Your task to perform on an android device: turn on wifi Image 0: 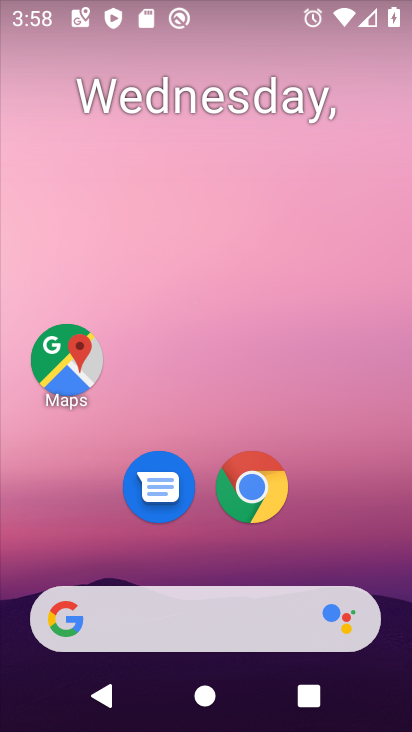
Step 0: drag from (355, 543) to (360, 198)
Your task to perform on an android device: turn on wifi Image 1: 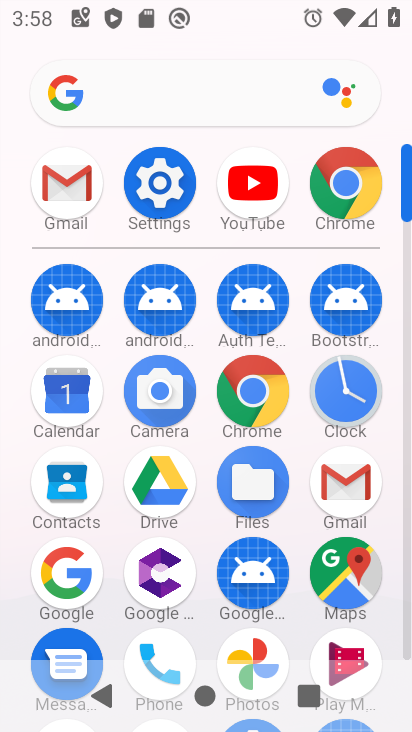
Step 1: click (173, 206)
Your task to perform on an android device: turn on wifi Image 2: 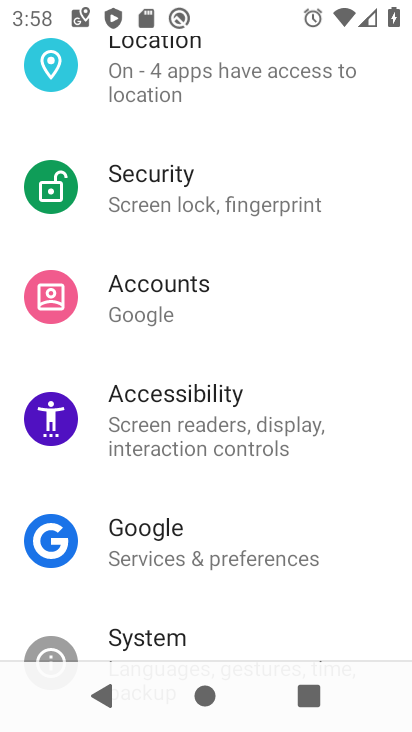
Step 2: drag from (325, 271) to (328, 347)
Your task to perform on an android device: turn on wifi Image 3: 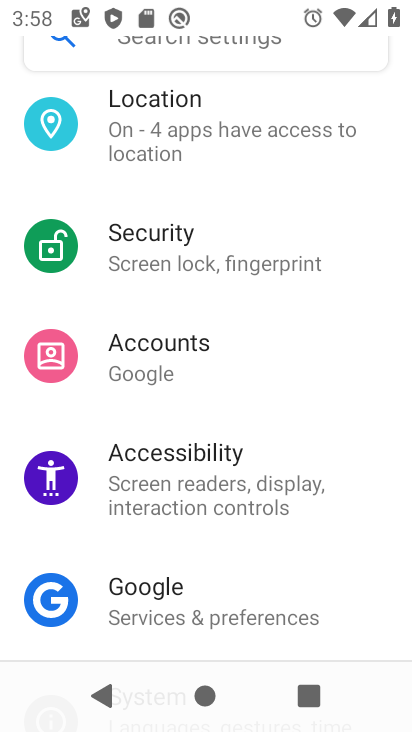
Step 3: drag from (340, 245) to (342, 343)
Your task to perform on an android device: turn on wifi Image 4: 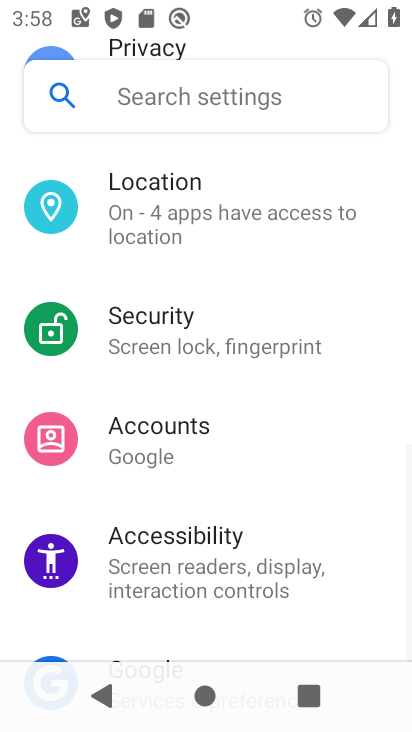
Step 4: drag from (341, 268) to (342, 366)
Your task to perform on an android device: turn on wifi Image 5: 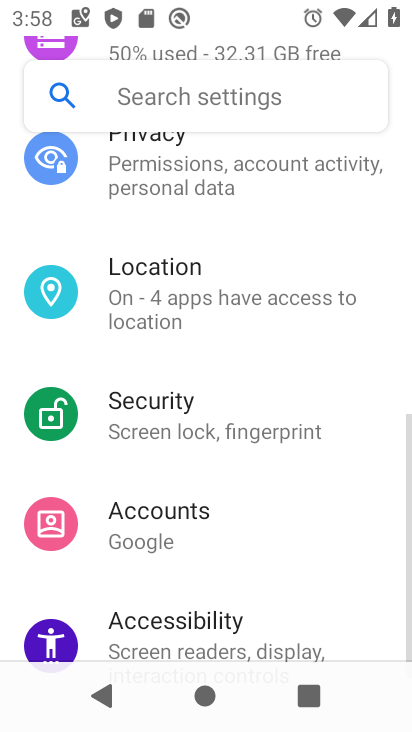
Step 5: drag from (341, 242) to (338, 366)
Your task to perform on an android device: turn on wifi Image 6: 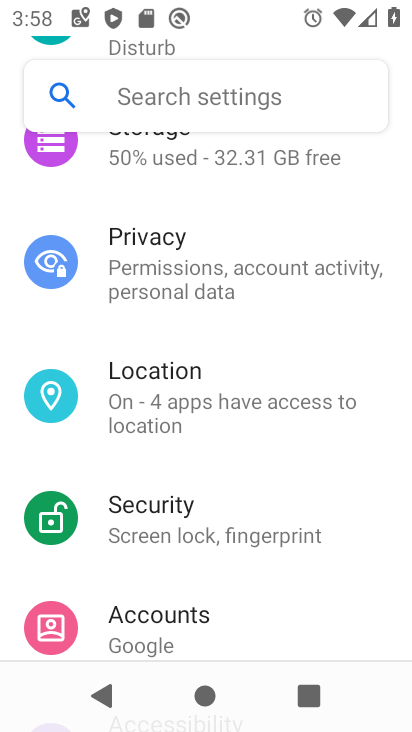
Step 6: drag from (328, 201) to (330, 349)
Your task to perform on an android device: turn on wifi Image 7: 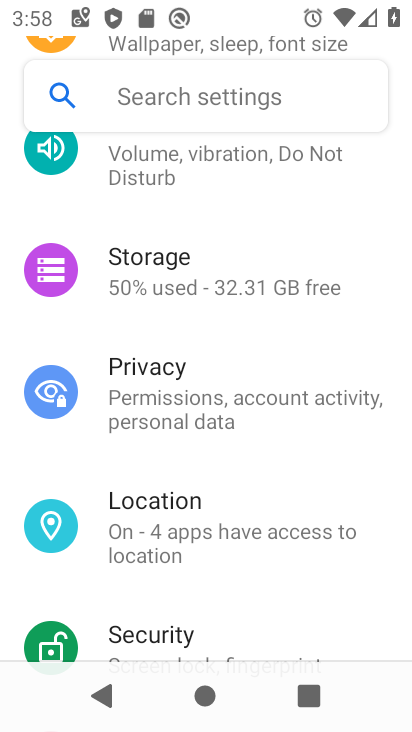
Step 7: drag from (323, 199) to (318, 368)
Your task to perform on an android device: turn on wifi Image 8: 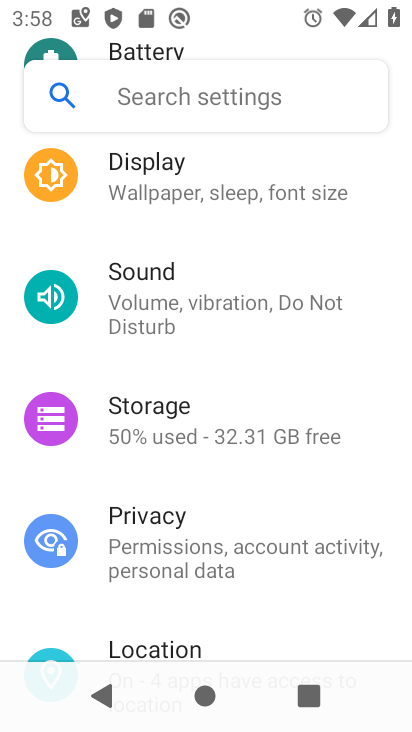
Step 8: drag from (330, 160) to (322, 306)
Your task to perform on an android device: turn on wifi Image 9: 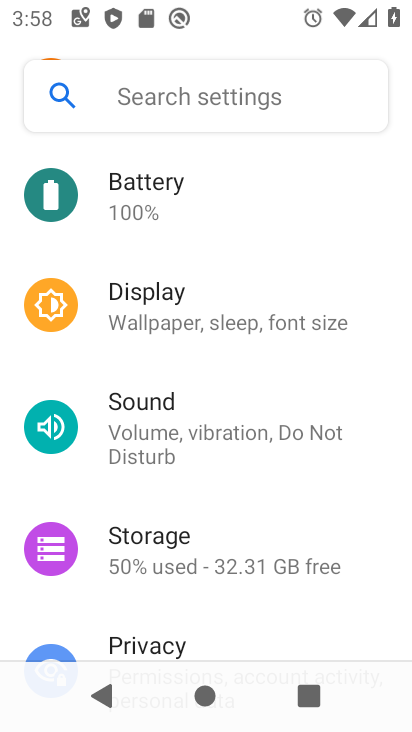
Step 9: drag from (307, 169) to (308, 362)
Your task to perform on an android device: turn on wifi Image 10: 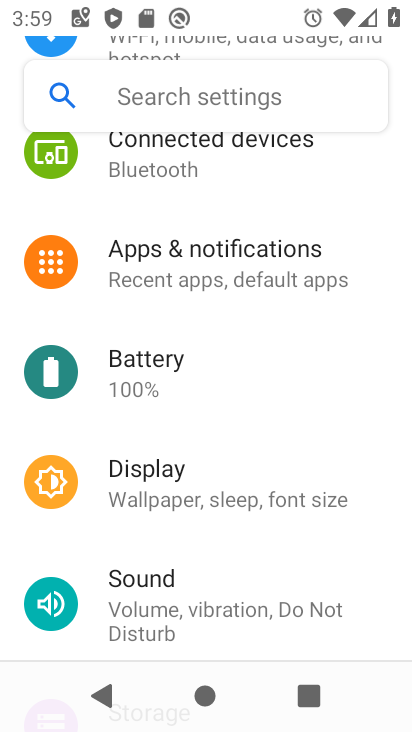
Step 10: drag from (317, 182) to (302, 343)
Your task to perform on an android device: turn on wifi Image 11: 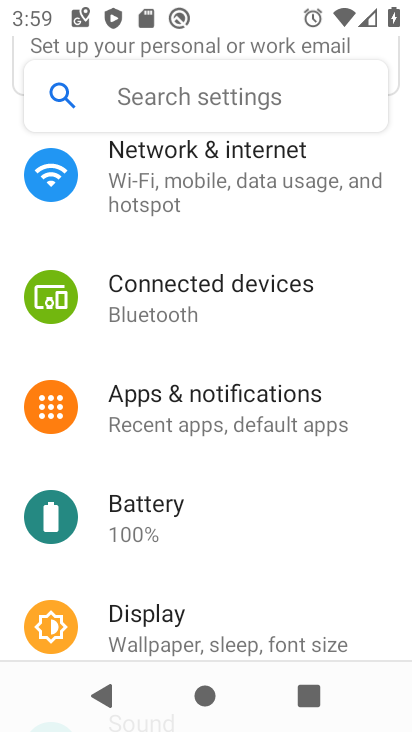
Step 11: click (310, 177)
Your task to perform on an android device: turn on wifi Image 12: 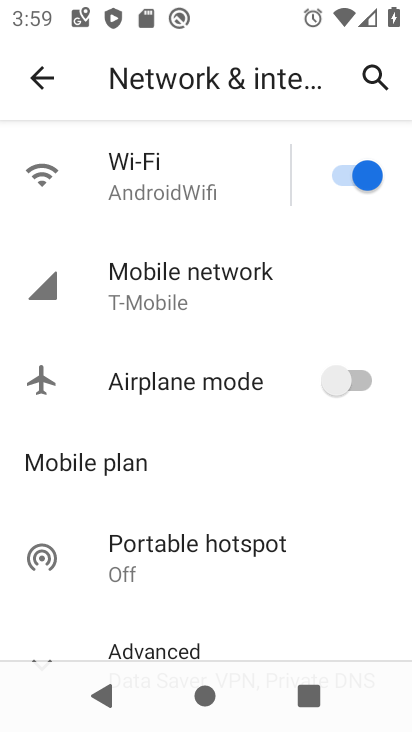
Step 12: task complete